Your task to perform on an android device: Go to privacy settings Image 0: 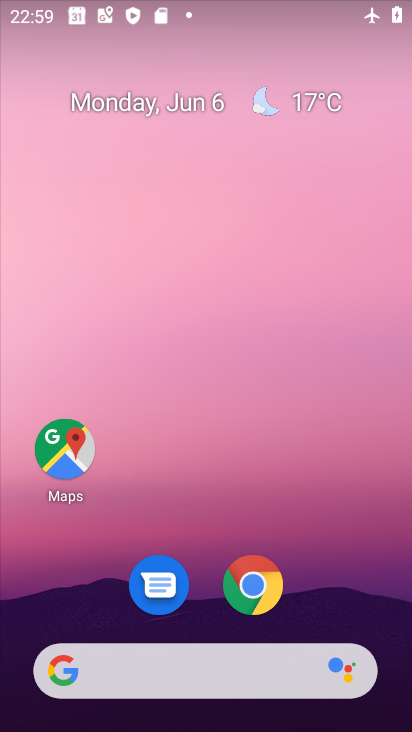
Step 0: drag from (176, 481) to (178, 0)
Your task to perform on an android device: Go to privacy settings Image 1: 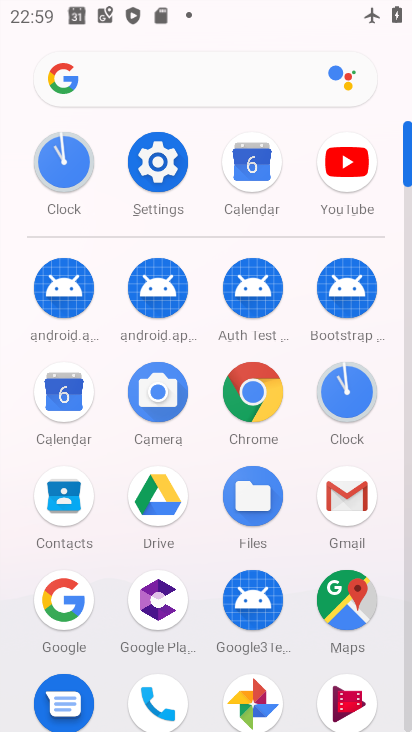
Step 1: click (167, 170)
Your task to perform on an android device: Go to privacy settings Image 2: 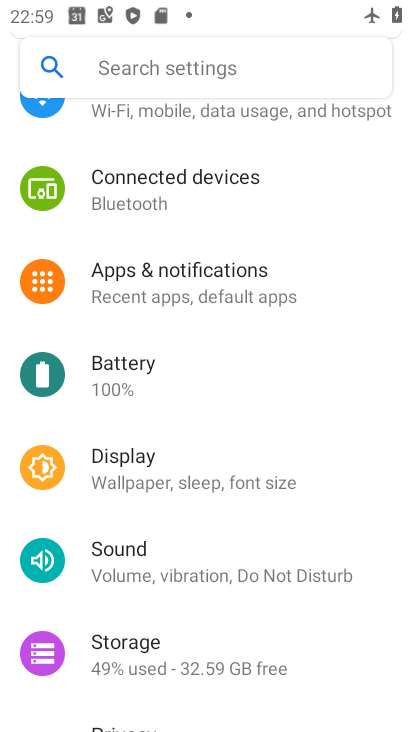
Step 2: drag from (236, 262) to (295, 512)
Your task to perform on an android device: Go to privacy settings Image 3: 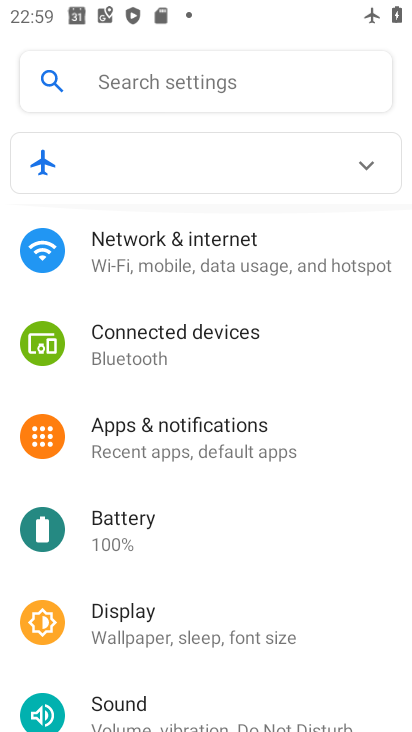
Step 3: drag from (298, 507) to (311, 36)
Your task to perform on an android device: Go to privacy settings Image 4: 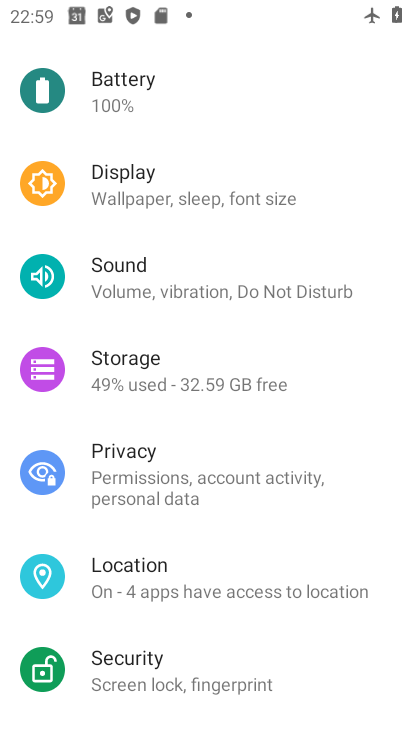
Step 4: click (185, 460)
Your task to perform on an android device: Go to privacy settings Image 5: 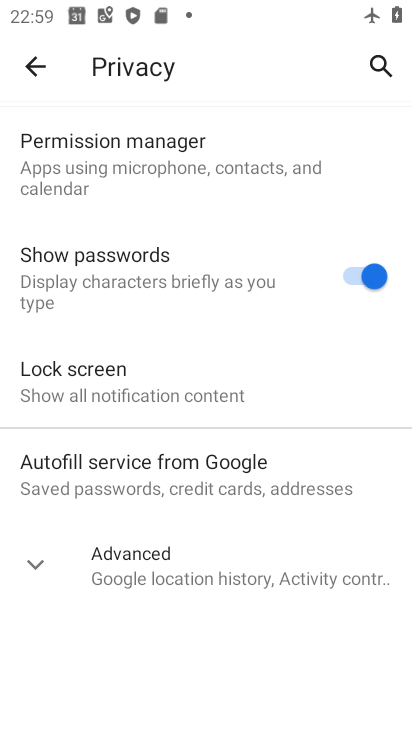
Step 5: task complete